Your task to perform on an android device: toggle pop-ups in chrome Image 0: 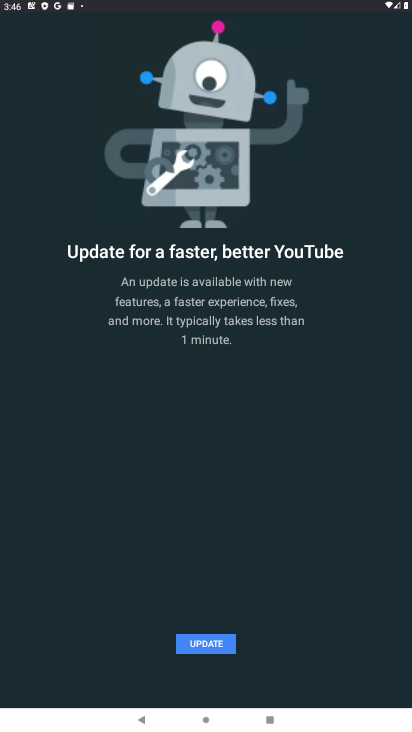
Step 0: press home button
Your task to perform on an android device: toggle pop-ups in chrome Image 1: 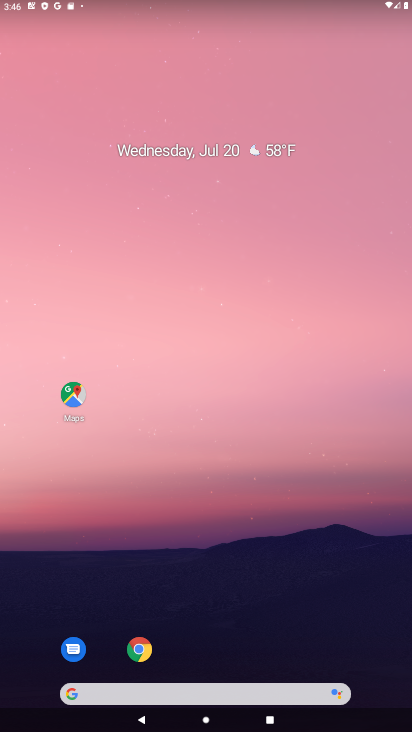
Step 1: drag from (235, 709) to (234, 200)
Your task to perform on an android device: toggle pop-ups in chrome Image 2: 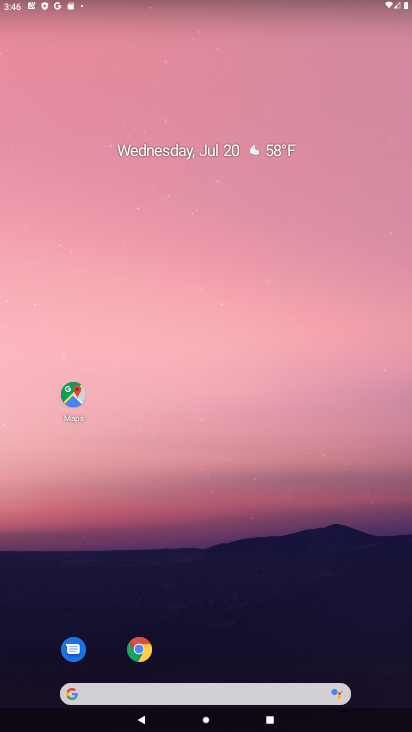
Step 2: click (137, 647)
Your task to perform on an android device: toggle pop-ups in chrome Image 3: 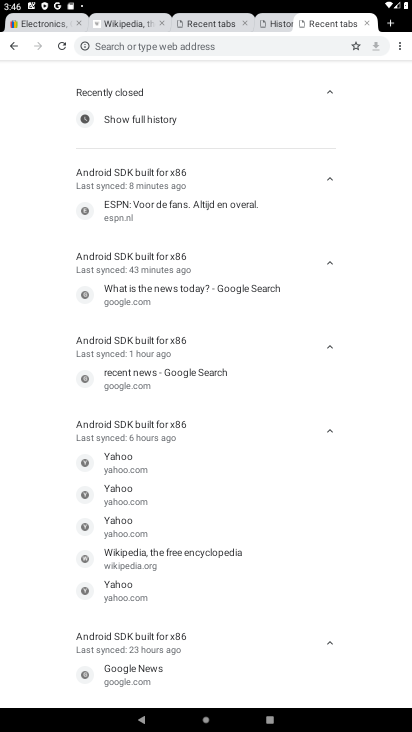
Step 3: click (399, 47)
Your task to perform on an android device: toggle pop-ups in chrome Image 4: 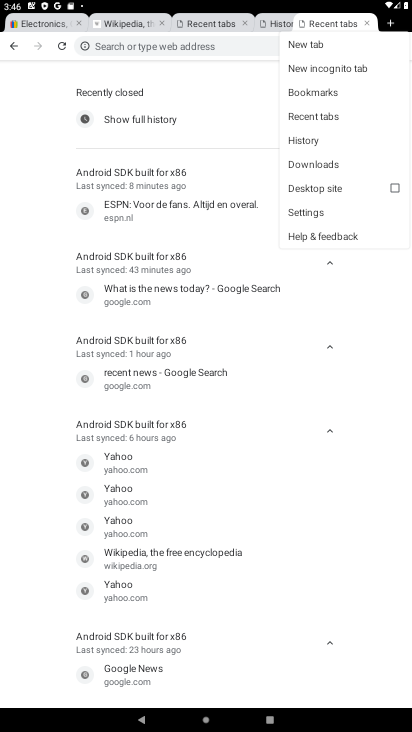
Step 4: click (302, 211)
Your task to perform on an android device: toggle pop-ups in chrome Image 5: 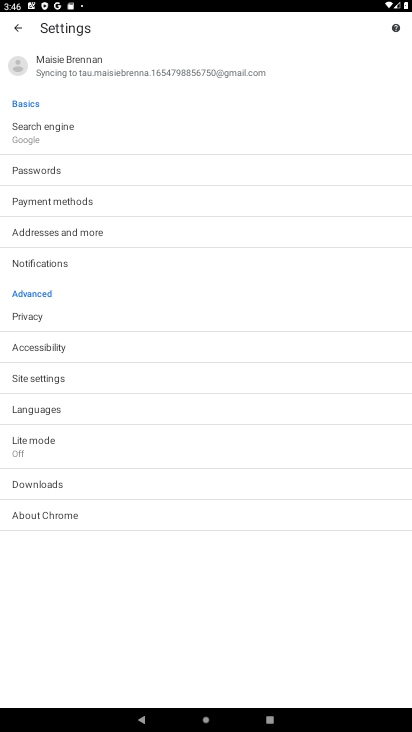
Step 5: click (48, 376)
Your task to perform on an android device: toggle pop-ups in chrome Image 6: 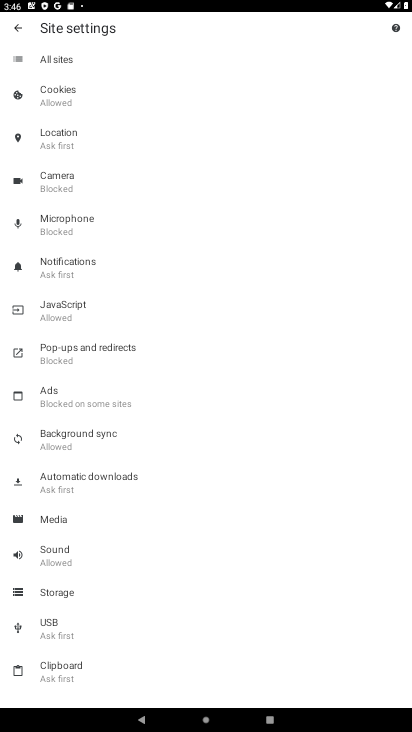
Step 6: click (61, 347)
Your task to perform on an android device: toggle pop-ups in chrome Image 7: 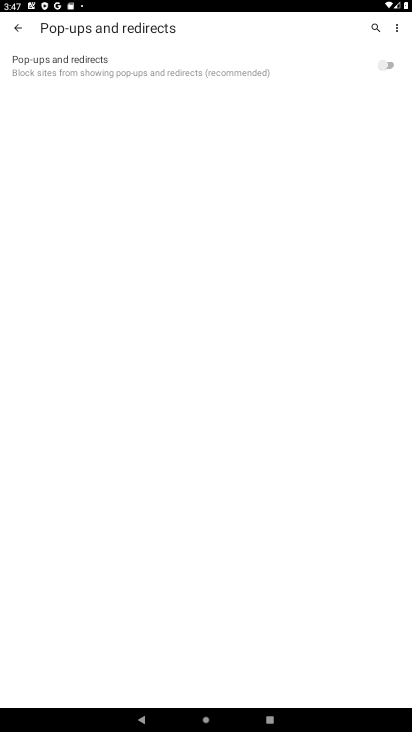
Step 7: click (392, 59)
Your task to perform on an android device: toggle pop-ups in chrome Image 8: 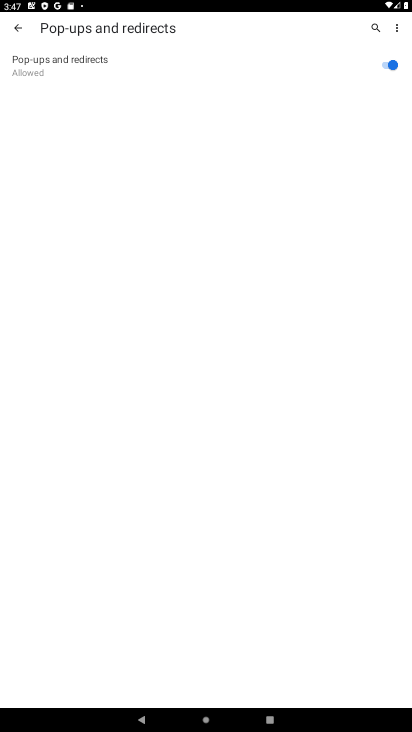
Step 8: task complete